Your task to perform on an android device: Go to Amazon Image 0: 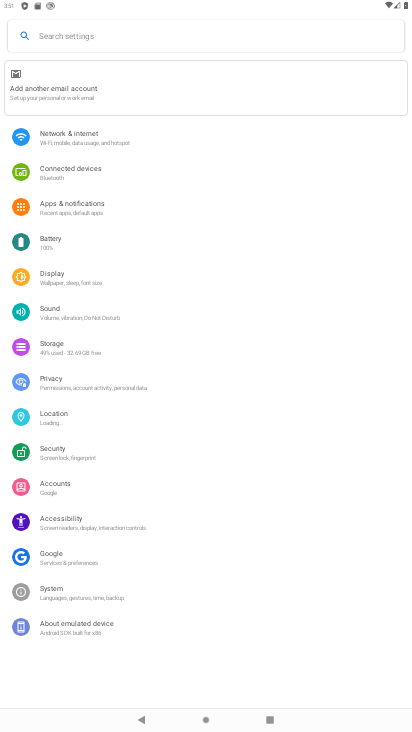
Step 0: press home button
Your task to perform on an android device: Go to Amazon Image 1: 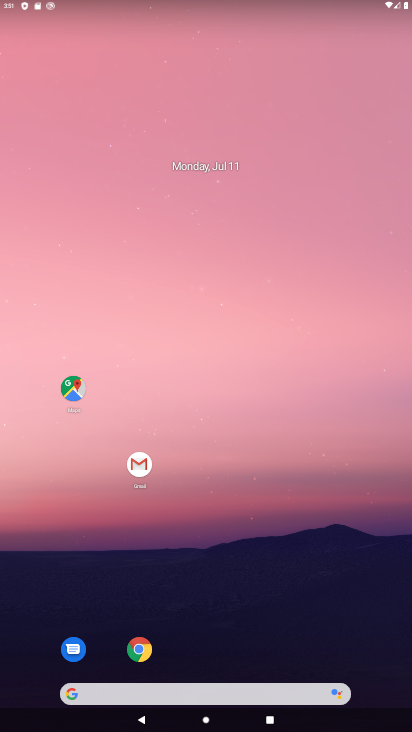
Step 1: click (154, 696)
Your task to perform on an android device: Go to Amazon Image 2: 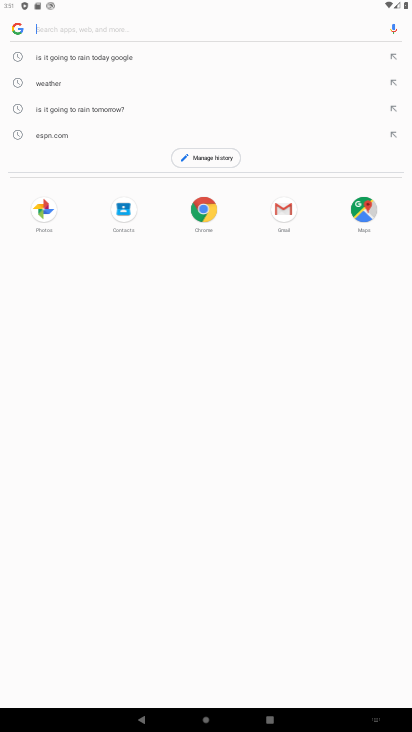
Step 2: type "Amazon"
Your task to perform on an android device: Go to Amazon Image 3: 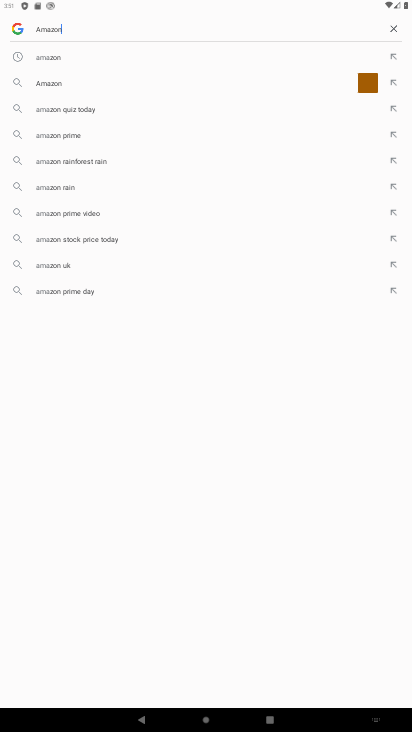
Step 3: type ""
Your task to perform on an android device: Go to Amazon Image 4: 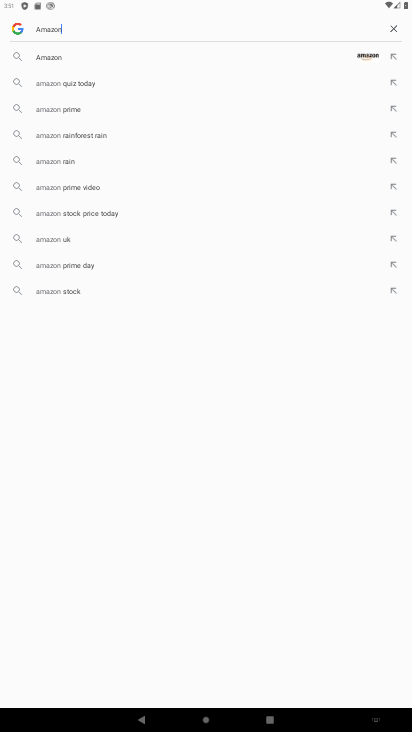
Step 4: click (54, 62)
Your task to perform on an android device: Go to Amazon Image 5: 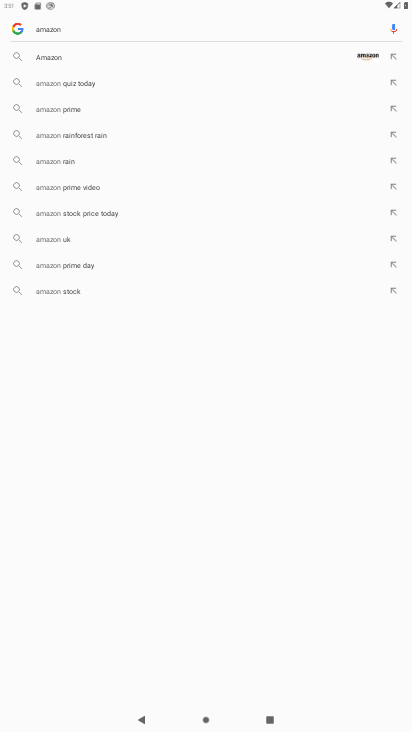
Step 5: click (51, 57)
Your task to perform on an android device: Go to Amazon Image 6: 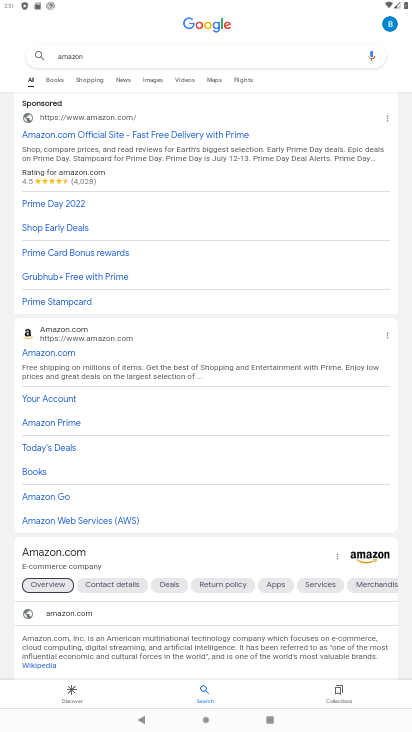
Step 6: task complete